Your task to perform on an android device: Go to notification settings Image 0: 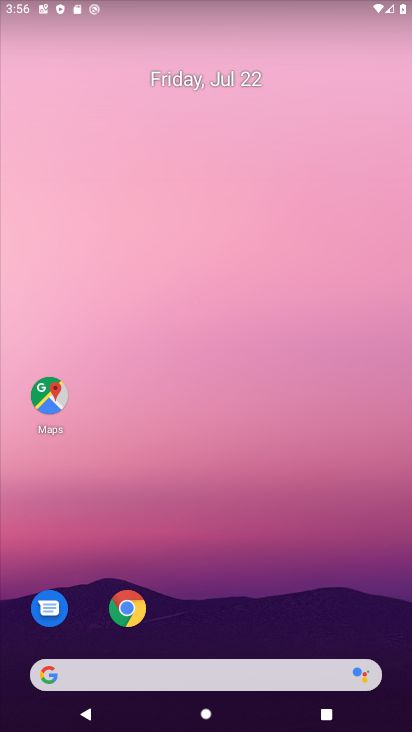
Step 0: drag from (223, 725) to (199, 115)
Your task to perform on an android device: Go to notification settings Image 1: 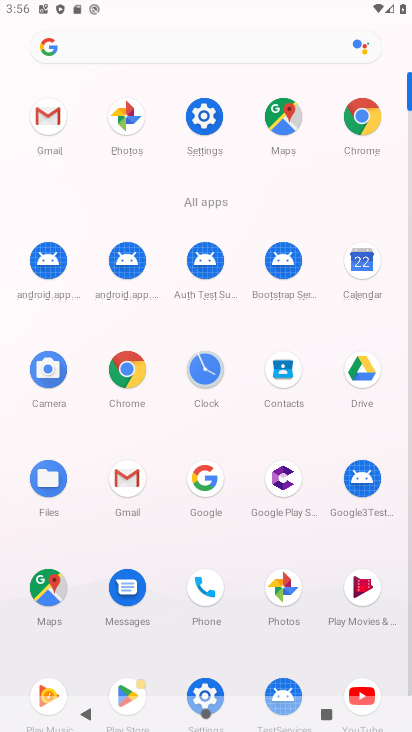
Step 1: click (199, 115)
Your task to perform on an android device: Go to notification settings Image 2: 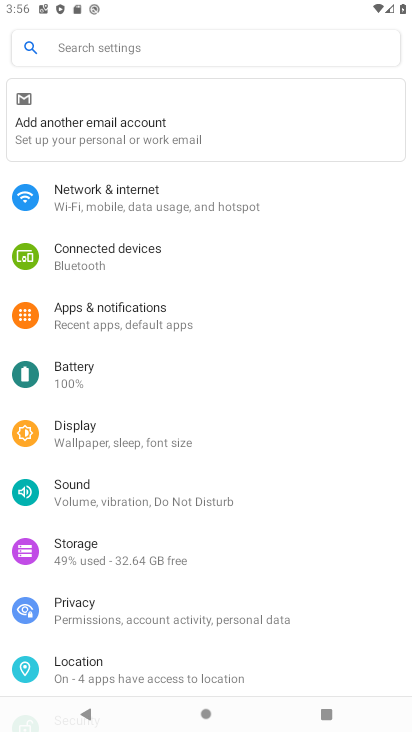
Step 2: click (113, 319)
Your task to perform on an android device: Go to notification settings Image 3: 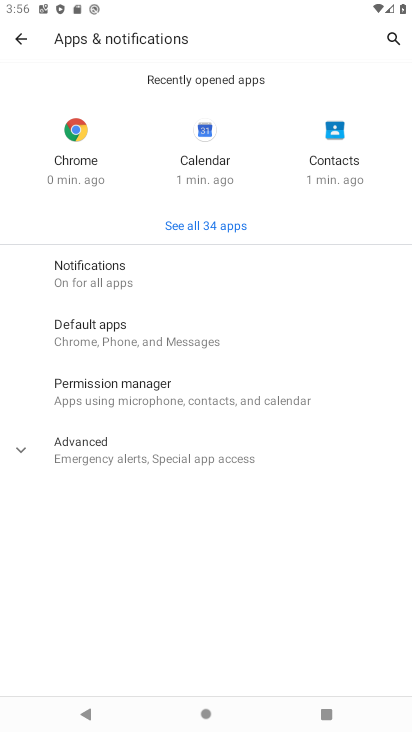
Step 3: click (97, 266)
Your task to perform on an android device: Go to notification settings Image 4: 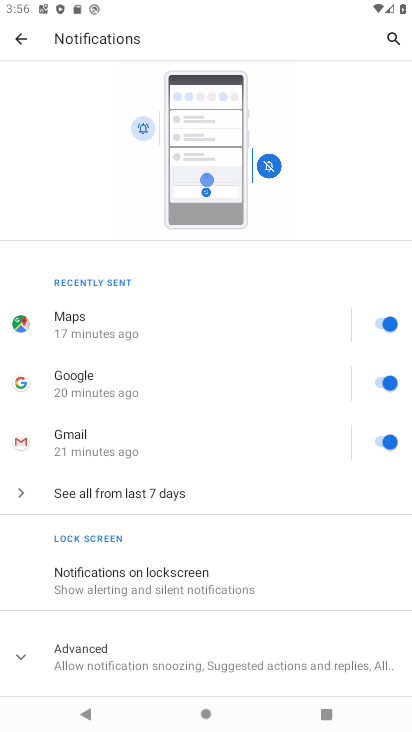
Step 4: task complete